Your task to perform on an android device: turn on airplane mode Image 0: 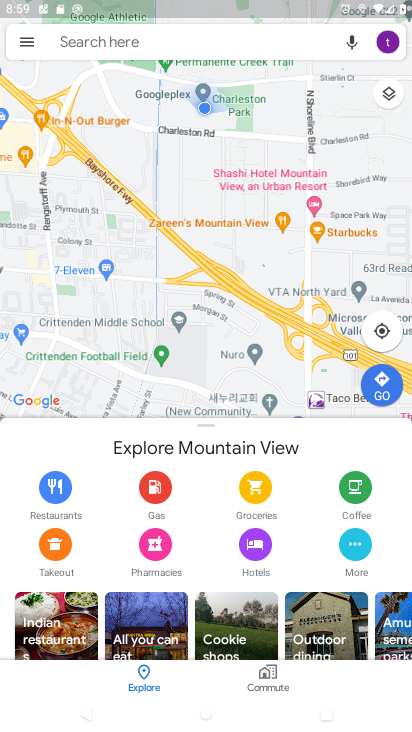
Step 0: press home button
Your task to perform on an android device: turn on airplane mode Image 1: 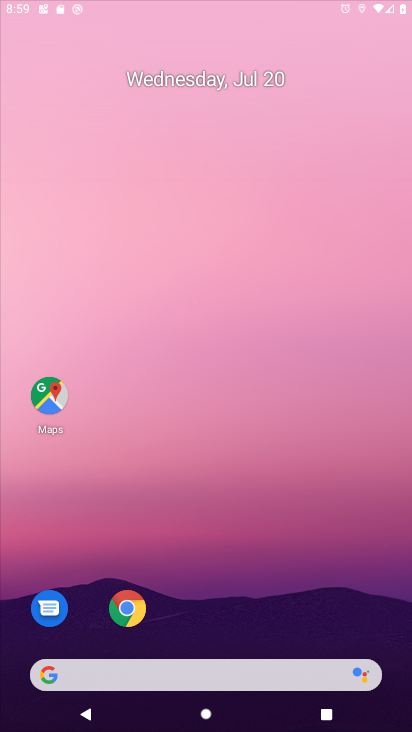
Step 1: drag from (187, 651) to (211, 201)
Your task to perform on an android device: turn on airplane mode Image 2: 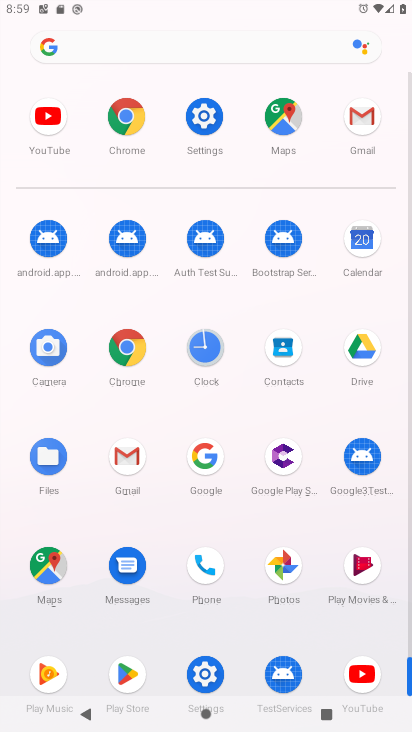
Step 2: click (204, 113)
Your task to perform on an android device: turn on airplane mode Image 3: 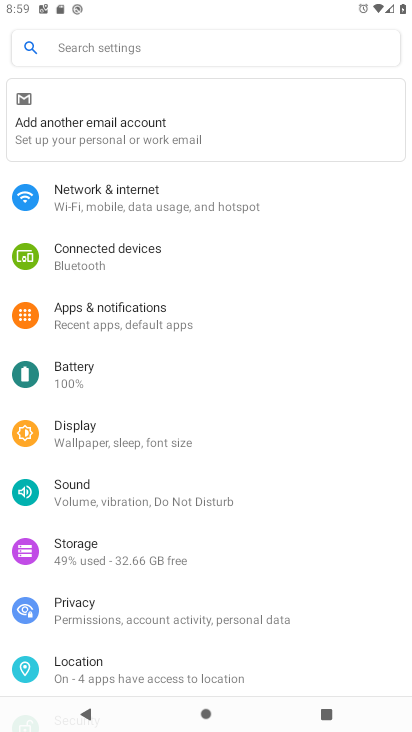
Step 3: click (133, 190)
Your task to perform on an android device: turn on airplane mode Image 4: 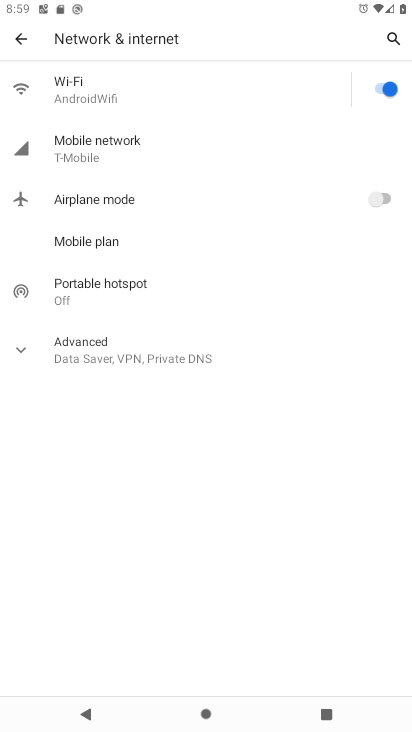
Step 4: click (366, 201)
Your task to perform on an android device: turn on airplane mode Image 5: 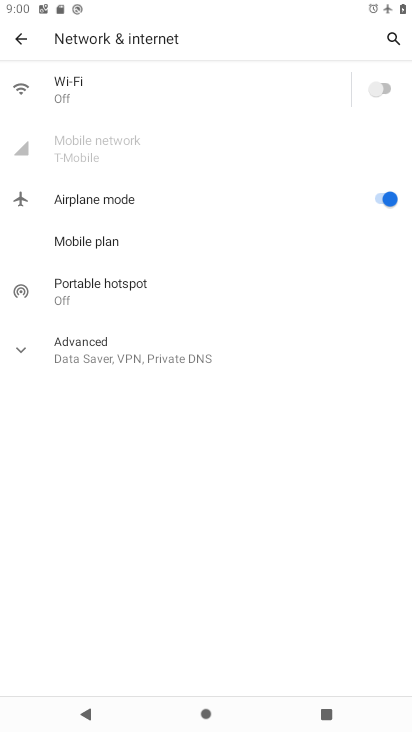
Step 5: task complete